Your task to perform on an android device: open app "Spotify" (install if not already installed), go to login, and select forgot password Image 0: 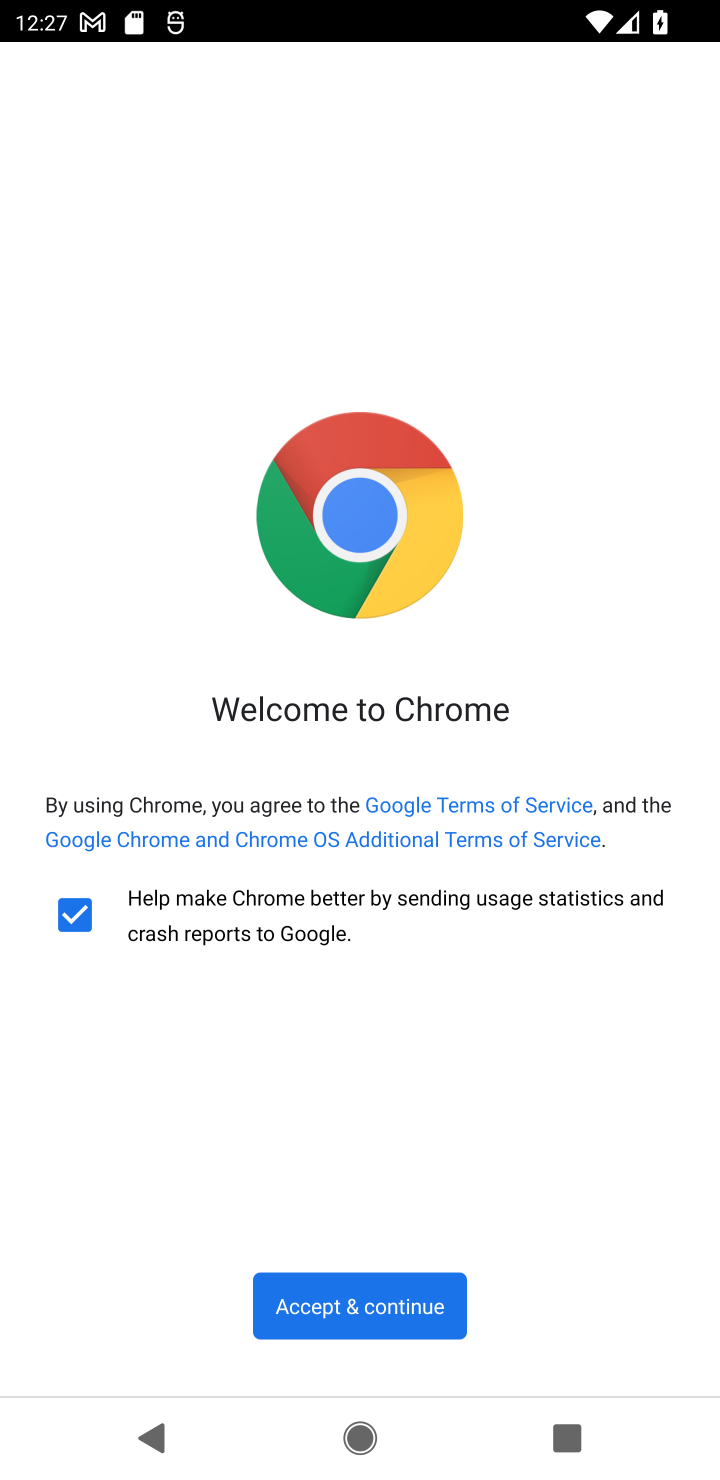
Step 0: press home button
Your task to perform on an android device: open app "Spotify" (install if not already installed), go to login, and select forgot password Image 1: 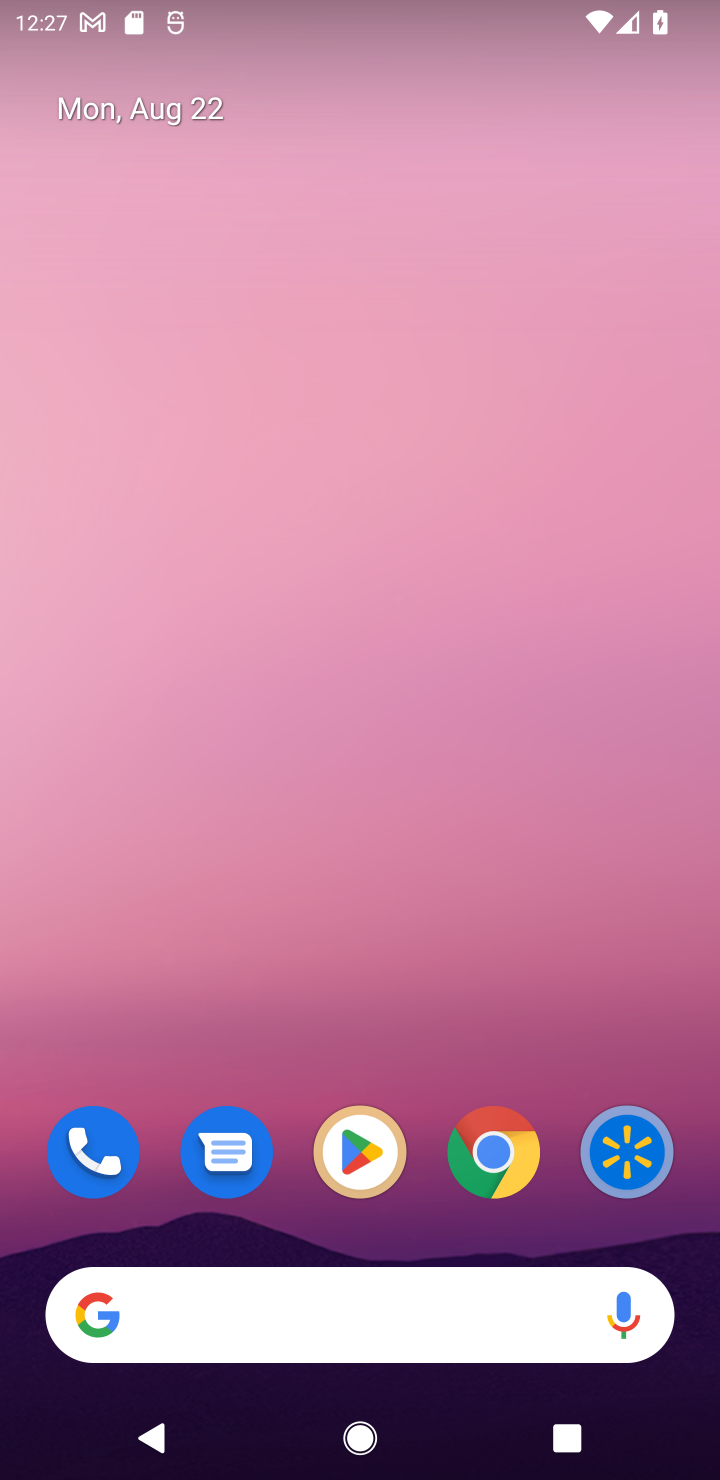
Step 1: click (347, 1163)
Your task to perform on an android device: open app "Spotify" (install if not already installed), go to login, and select forgot password Image 2: 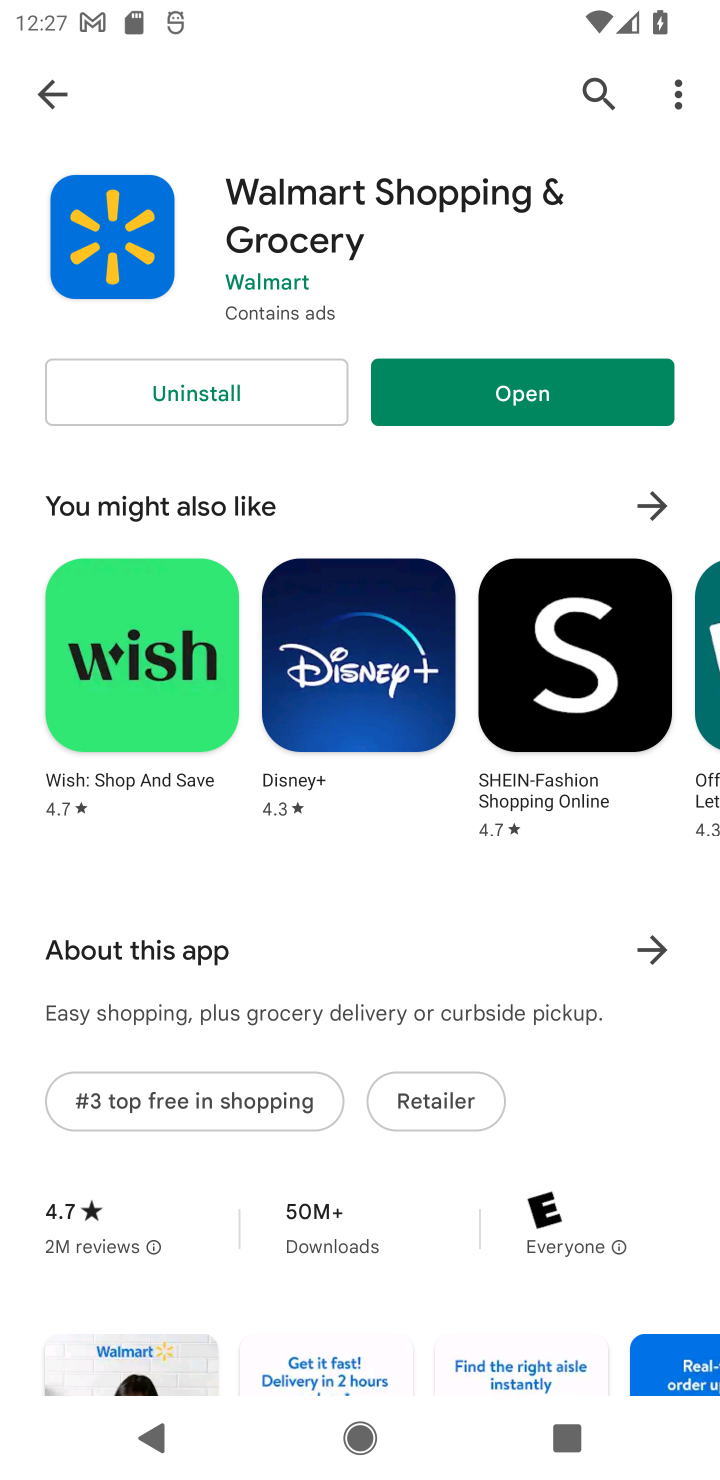
Step 2: click (56, 88)
Your task to perform on an android device: open app "Spotify" (install if not already installed), go to login, and select forgot password Image 3: 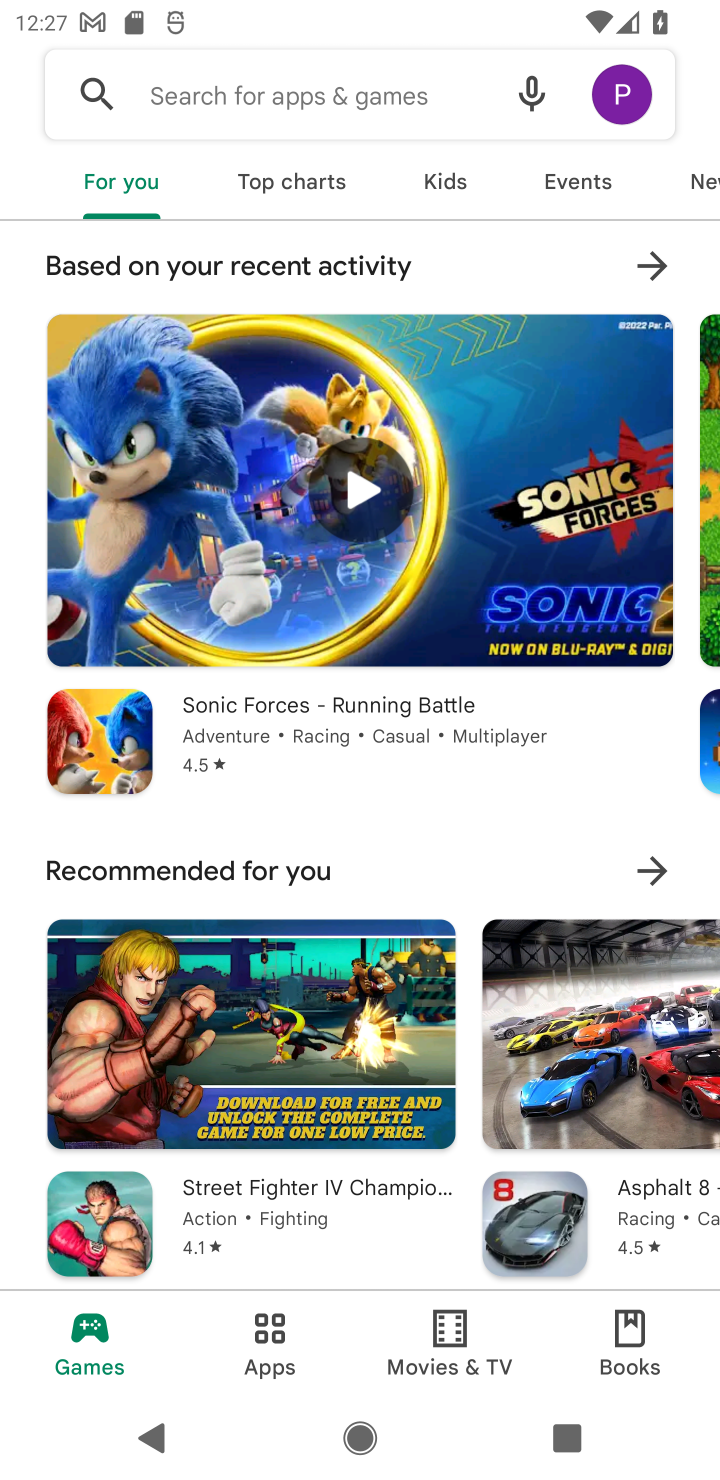
Step 3: click (253, 85)
Your task to perform on an android device: open app "Spotify" (install if not already installed), go to login, and select forgot password Image 4: 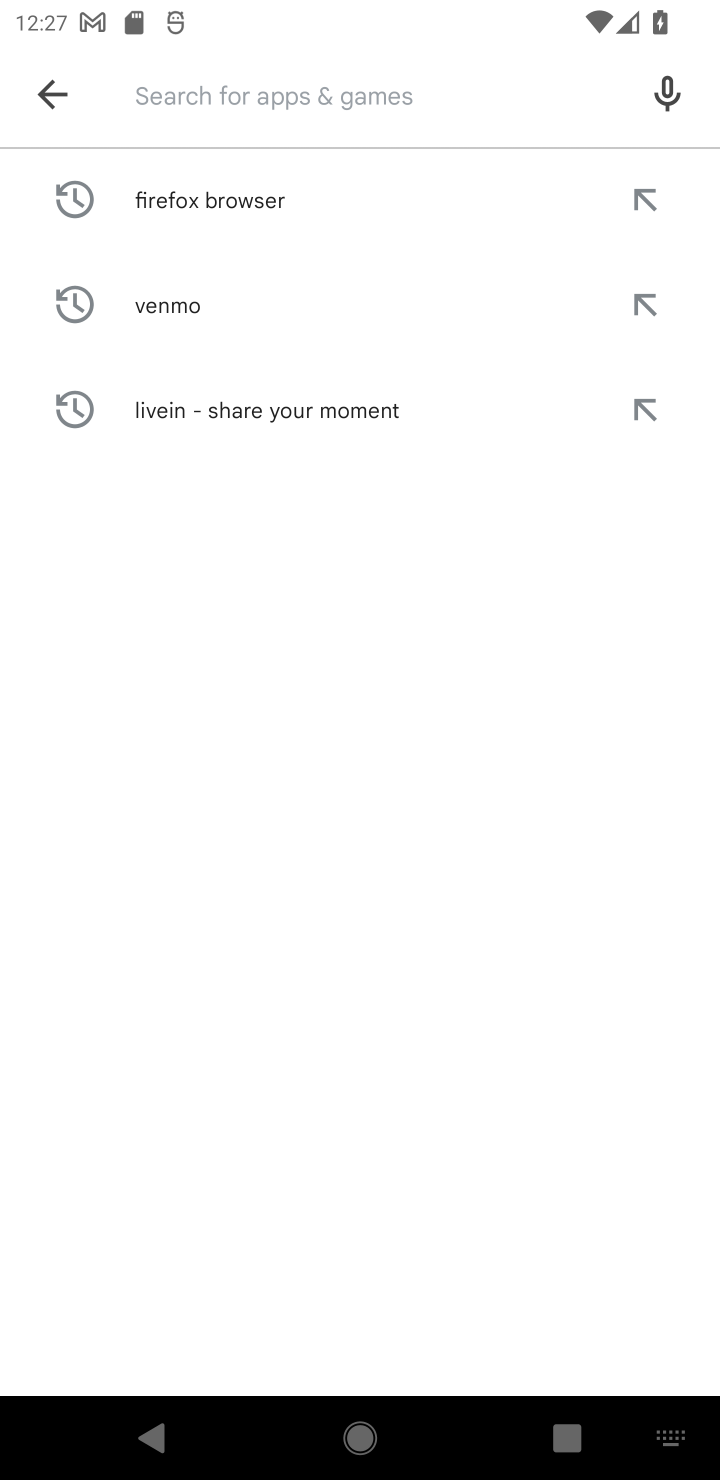
Step 4: type "Spotify"
Your task to perform on an android device: open app "Spotify" (install if not already installed), go to login, and select forgot password Image 5: 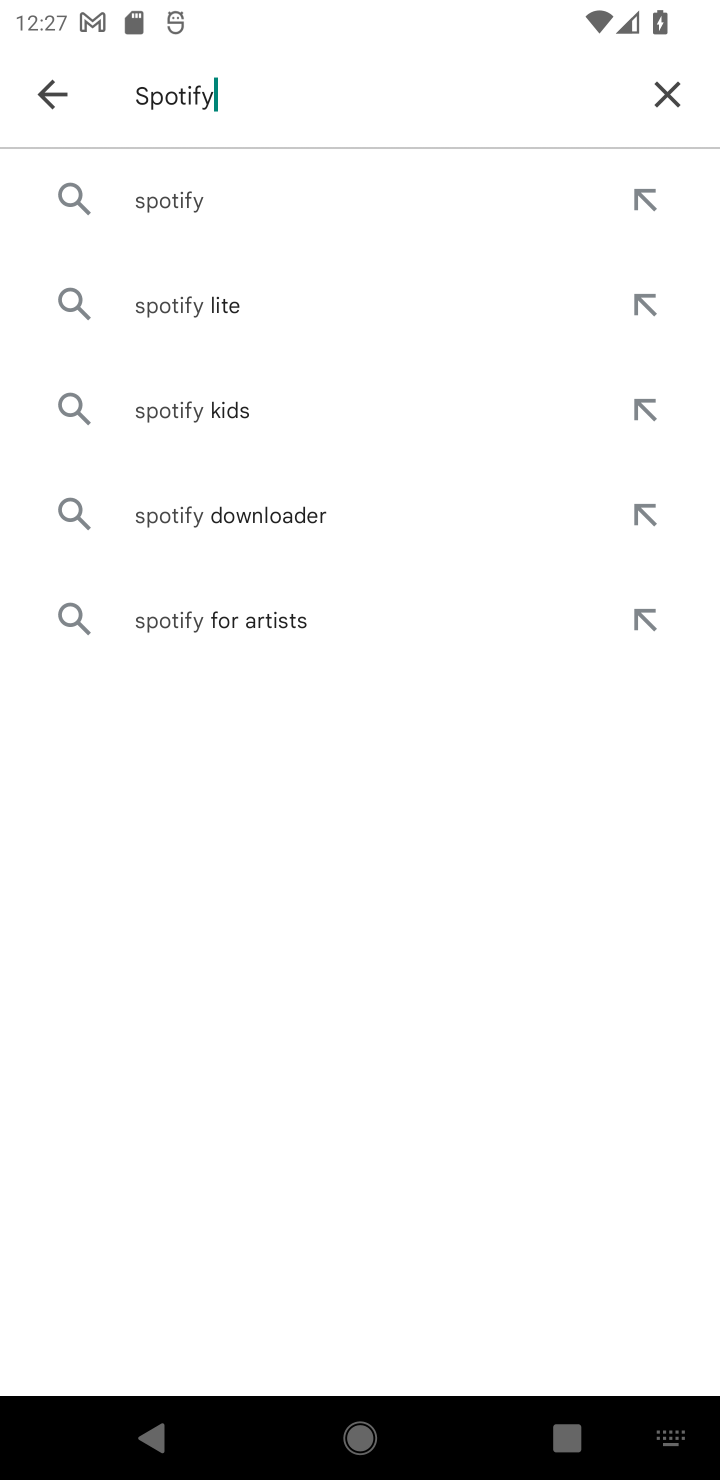
Step 5: click (161, 199)
Your task to perform on an android device: open app "Spotify" (install if not already installed), go to login, and select forgot password Image 6: 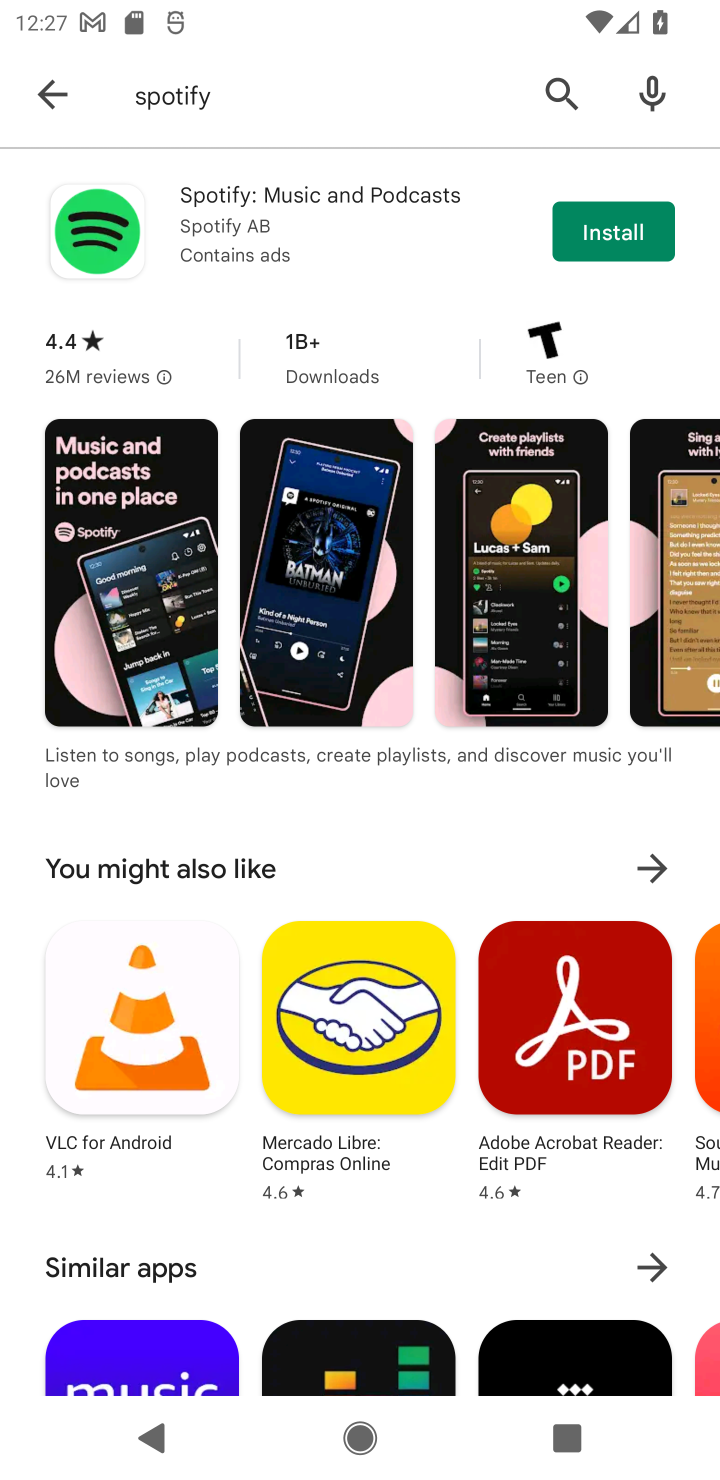
Step 6: click (637, 220)
Your task to perform on an android device: open app "Spotify" (install if not already installed), go to login, and select forgot password Image 7: 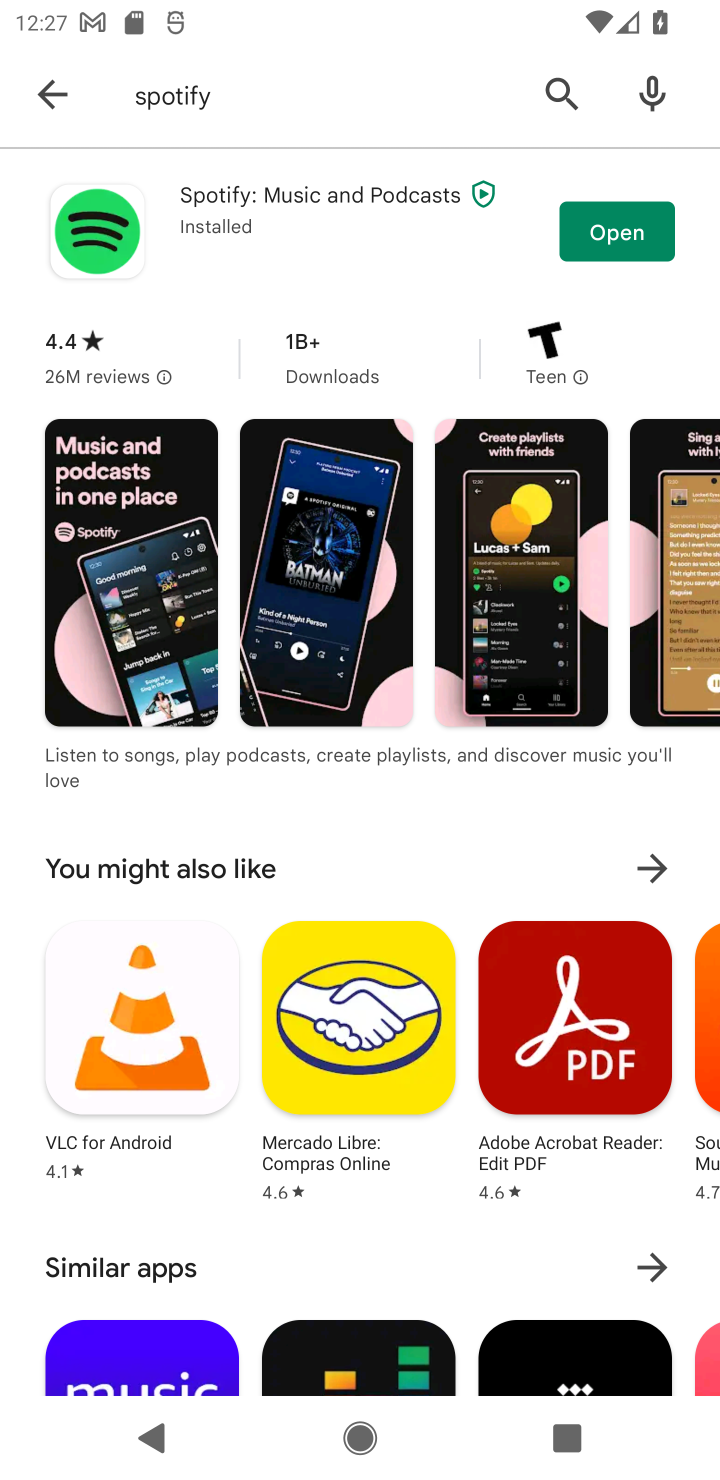
Step 7: click (617, 233)
Your task to perform on an android device: open app "Spotify" (install if not already installed), go to login, and select forgot password Image 8: 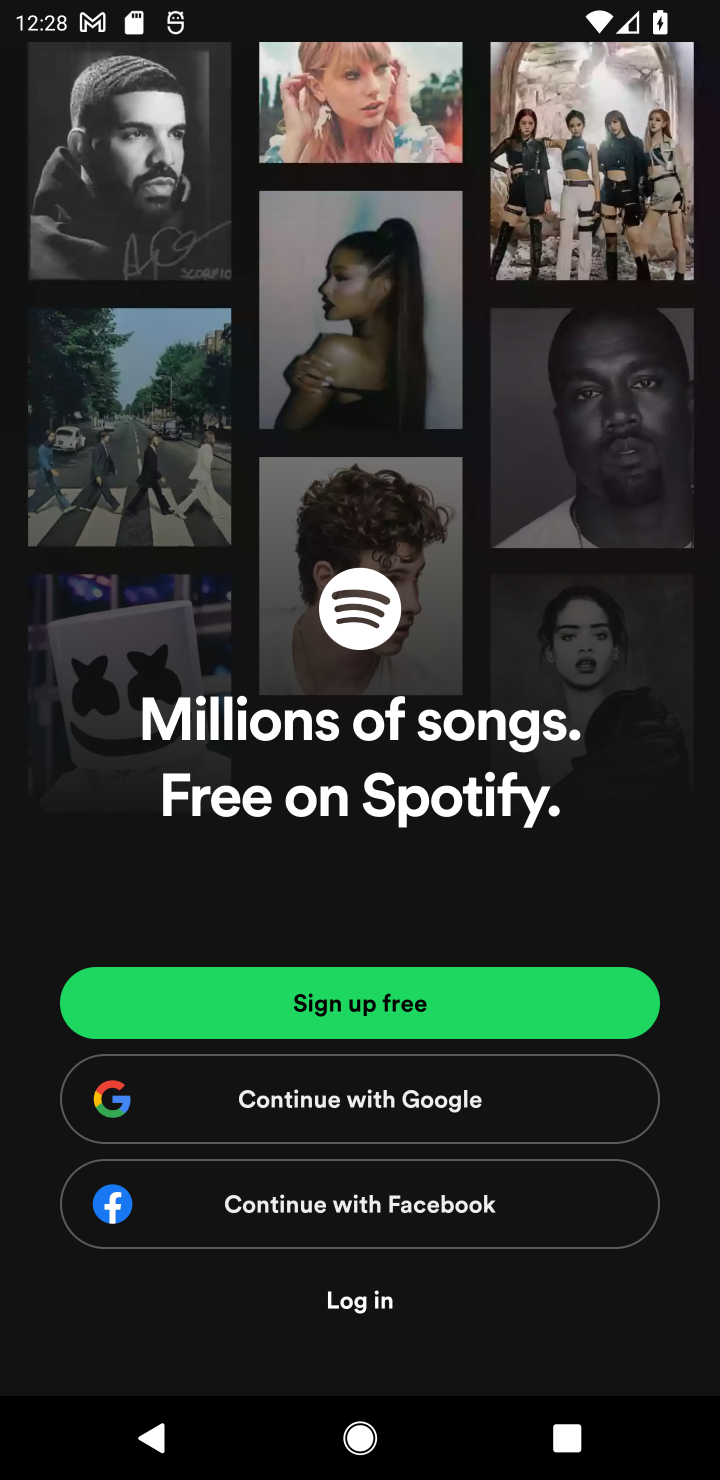
Step 8: task complete